Your task to perform on an android device: What's the weather? Image 0: 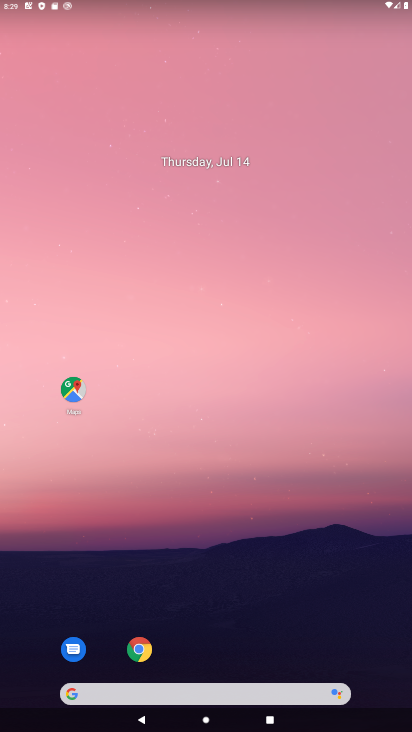
Step 0: drag from (250, 703) to (168, 215)
Your task to perform on an android device: What's the weather? Image 1: 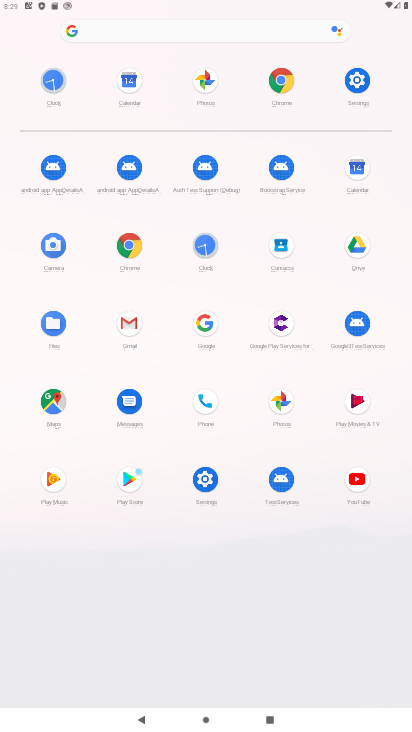
Step 1: click (155, 38)
Your task to perform on an android device: What's the weather? Image 2: 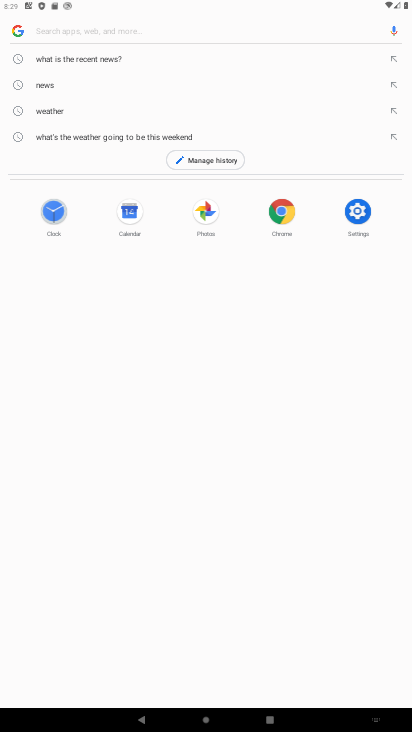
Step 2: click (52, 111)
Your task to perform on an android device: What's the weather? Image 3: 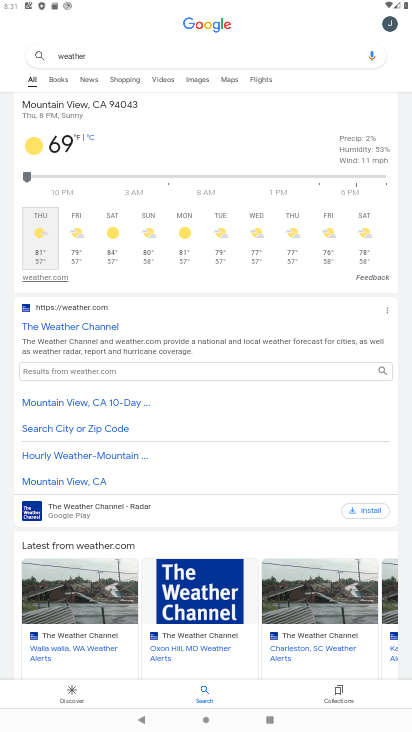
Step 3: task complete